Your task to perform on an android device: Search for pizza restaurants on Maps Image 0: 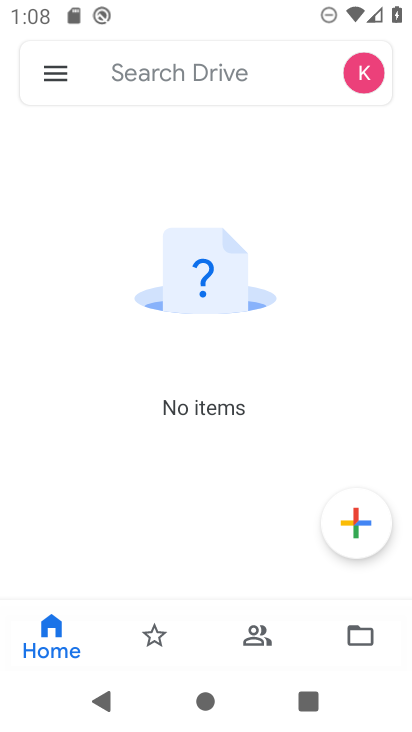
Step 0: press home button
Your task to perform on an android device: Search for pizza restaurants on Maps Image 1: 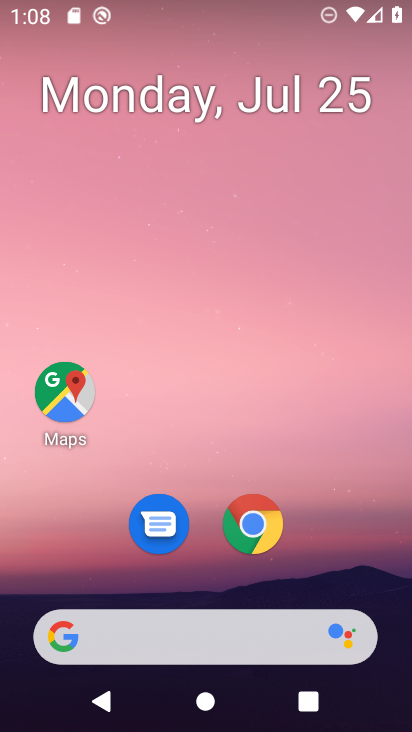
Step 1: click (59, 393)
Your task to perform on an android device: Search for pizza restaurants on Maps Image 2: 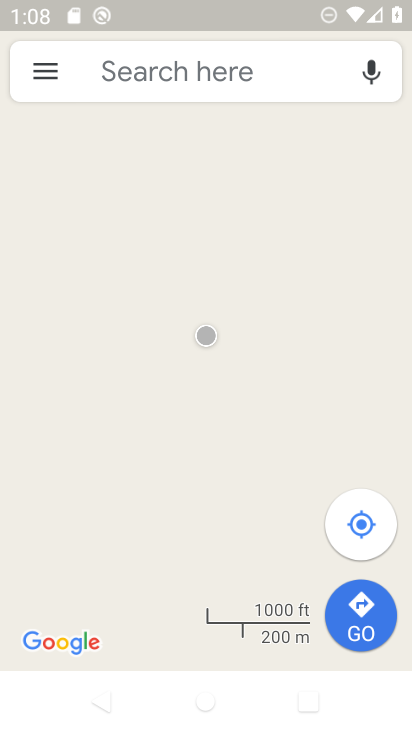
Step 2: click (189, 73)
Your task to perform on an android device: Search for pizza restaurants on Maps Image 3: 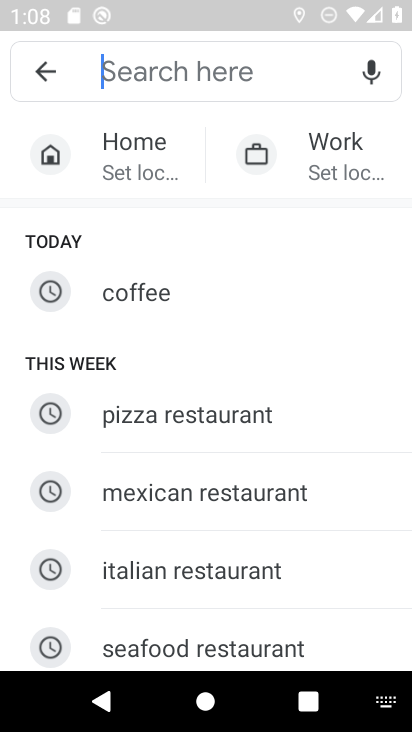
Step 3: click (228, 412)
Your task to perform on an android device: Search for pizza restaurants on Maps Image 4: 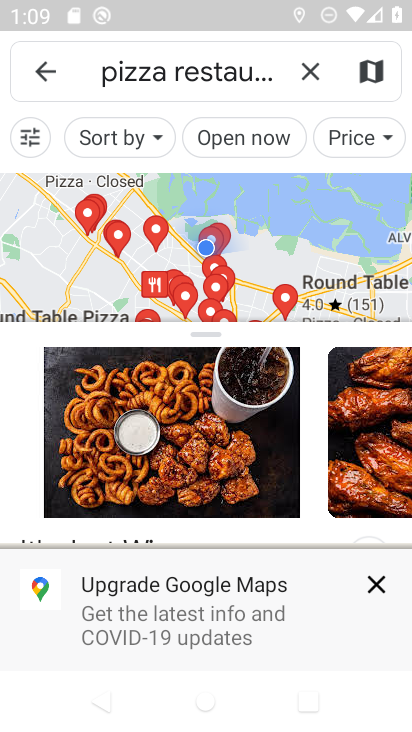
Step 4: task complete